Your task to perform on an android device: Open Chrome and go to the settings page Image 0: 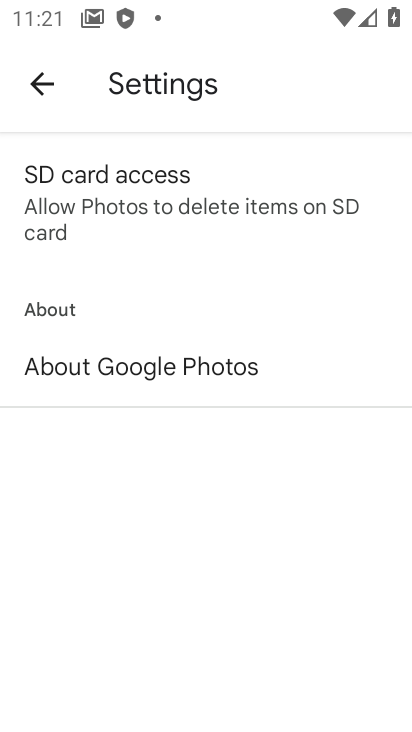
Step 0: press home button
Your task to perform on an android device: Open Chrome and go to the settings page Image 1: 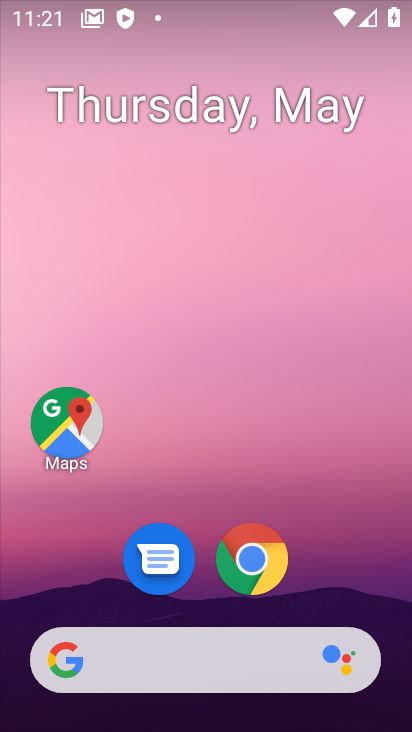
Step 1: click (254, 553)
Your task to perform on an android device: Open Chrome and go to the settings page Image 2: 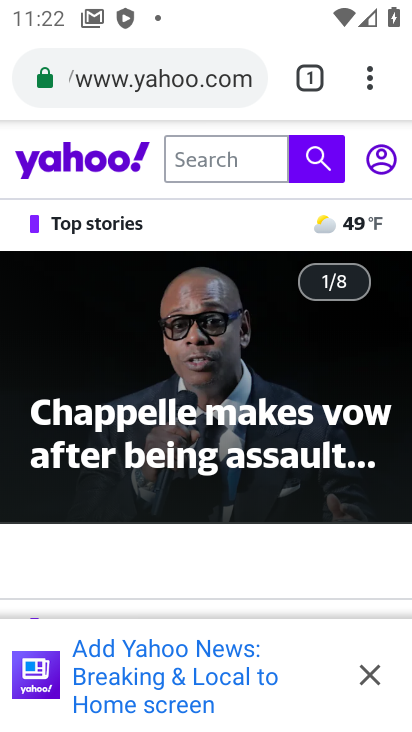
Step 2: task complete